Your task to perform on an android device: Add "lenovo thinkpad" to the cart on costco.com Image 0: 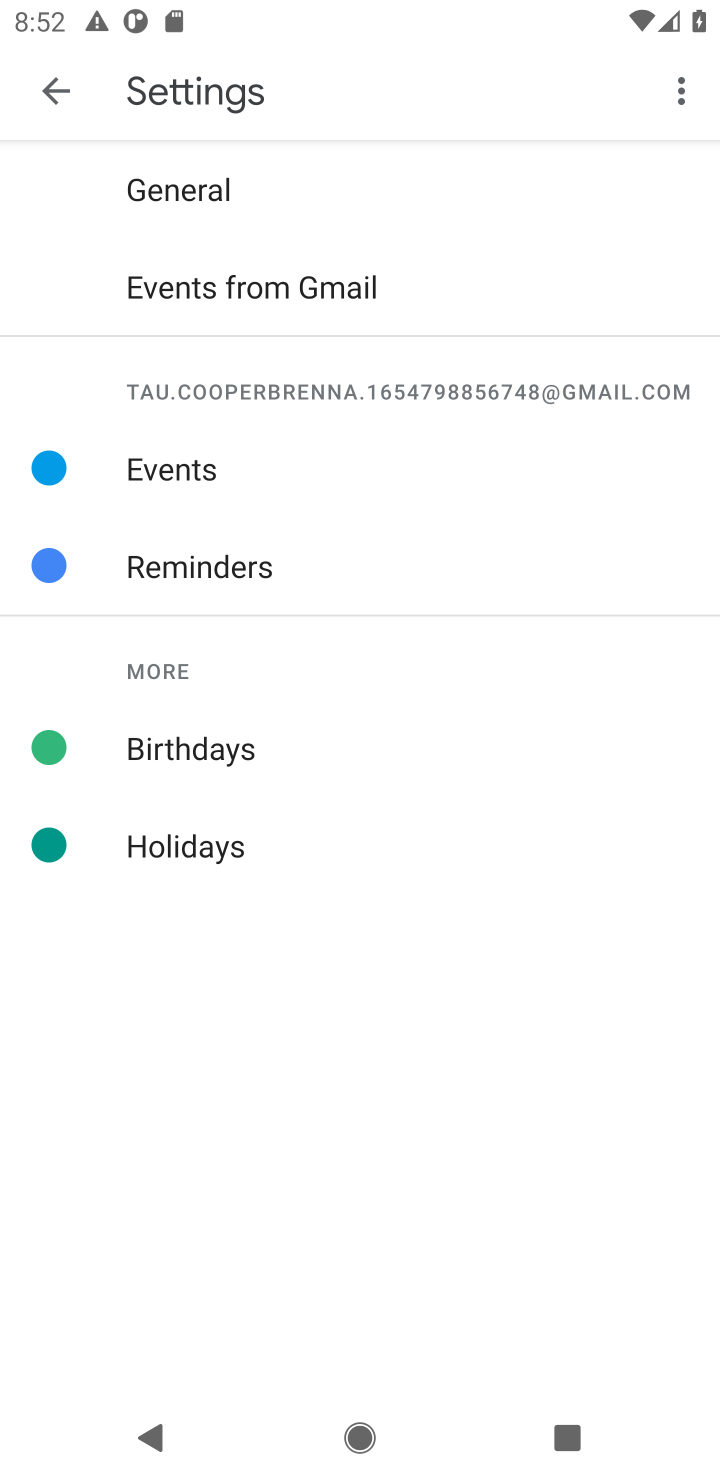
Step 0: task complete